Your task to perform on an android device: change text size in settings app Image 0: 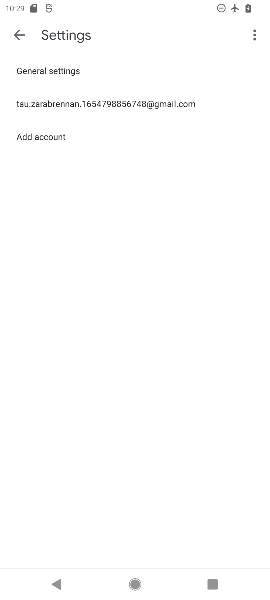
Step 0: press home button
Your task to perform on an android device: change text size in settings app Image 1: 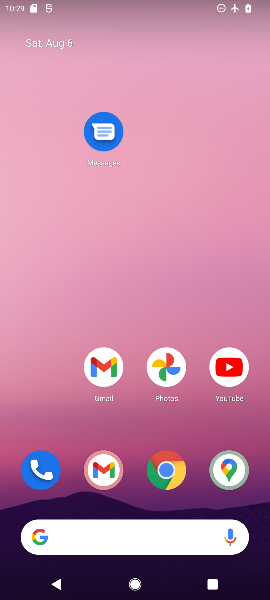
Step 1: drag from (163, 461) to (196, 450)
Your task to perform on an android device: change text size in settings app Image 2: 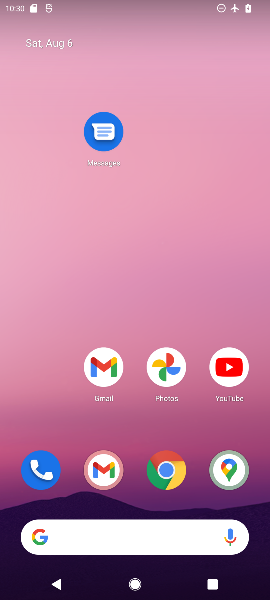
Step 2: drag from (152, 529) to (149, 120)
Your task to perform on an android device: change text size in settings app Image 3: 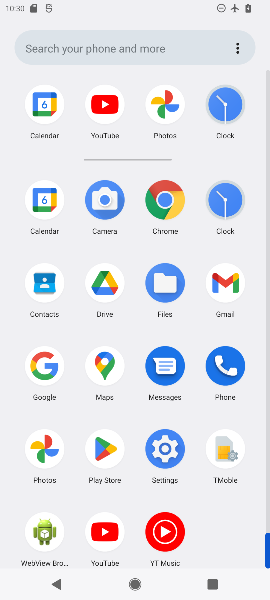
Step 3: click (170, 458)
Your task to perform on an android device: change text size in settings app Image 4: 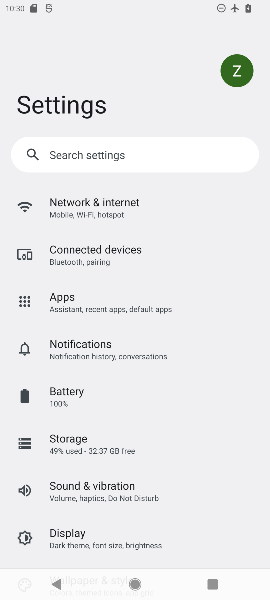
Step 4: drag from (159, 437) to (169, 123)
Your task to perform on an android device: change text size in settings app Image 5: 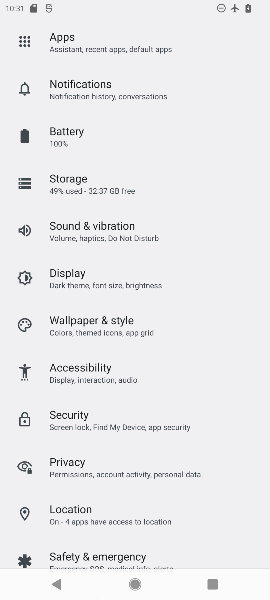
Step 5: drag from (100, 488) to (108, 160)
Your task to perform on an android device: change text size in settings app Image 6: 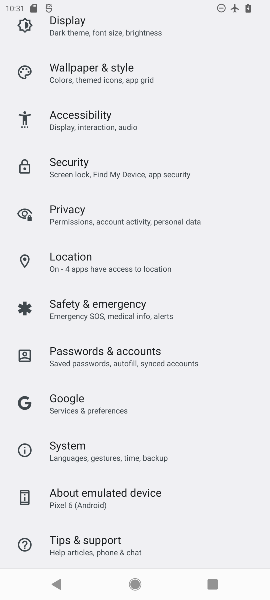
Step 6: click (132, 453)
Your task to perform on an android device: change text size in settings app Image 7: 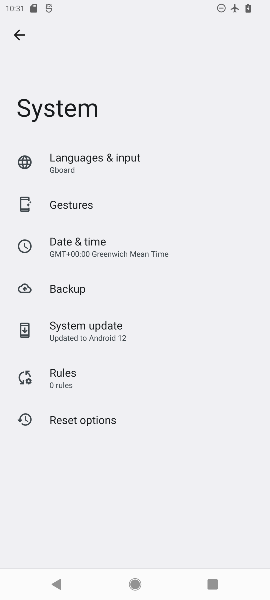
Step 7: click (95, 171)
Your task to perform on an android device: change text size in settings app Image 8: 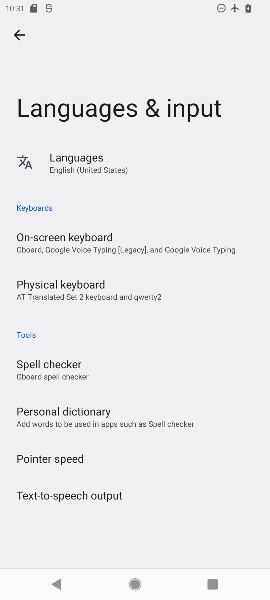
Step 8: click (126, 289)
Your task to perform on an android device: change text size in settings app Image 9: 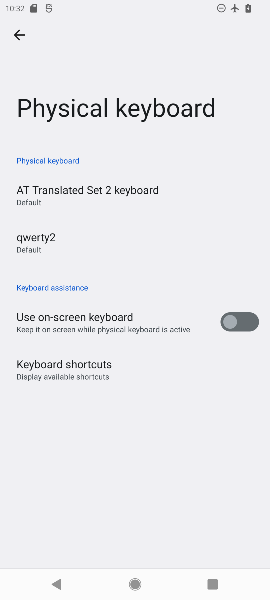
Step 9: click (18, 44)
Your task to perform on an android device: change text size in settings app Image 10: 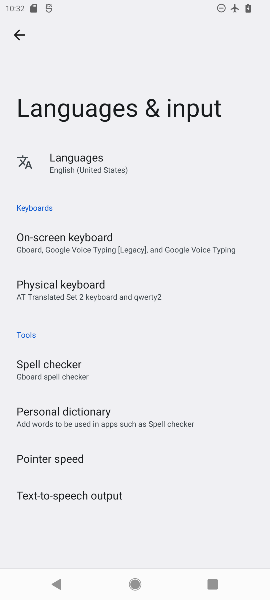
Step 10: click (105, 172)
Your task to perform on an android device: change text size in settings app Image 11: 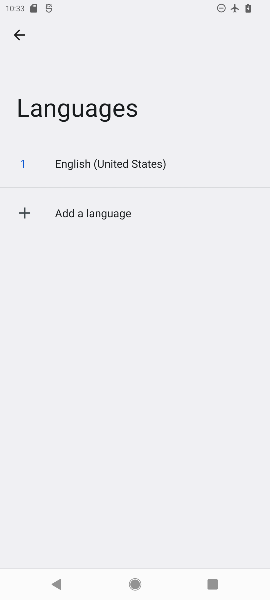
Step 11: task complete